Your task to perform on an android device: Open the map Image 0: 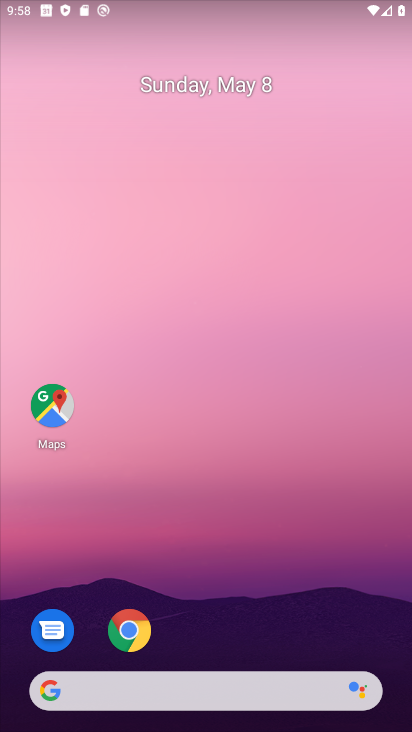
Step 0: drag from (198, 728) to (168, 84)
Your task to perform on an android device: Open the map Image 1: 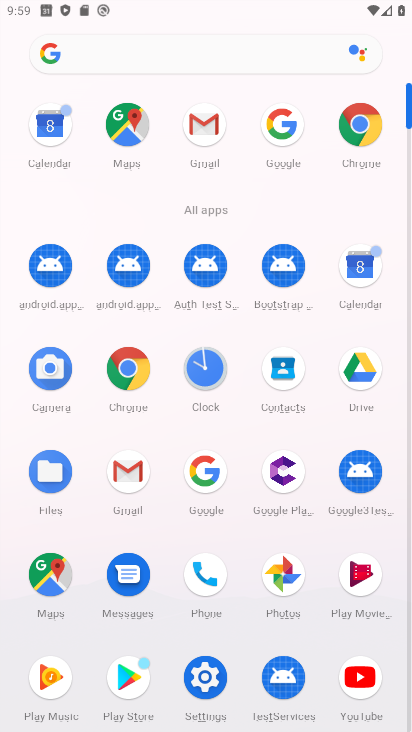
Step 1: click (46, 573)
Your task to perform on an android device: Open the map Image 2: 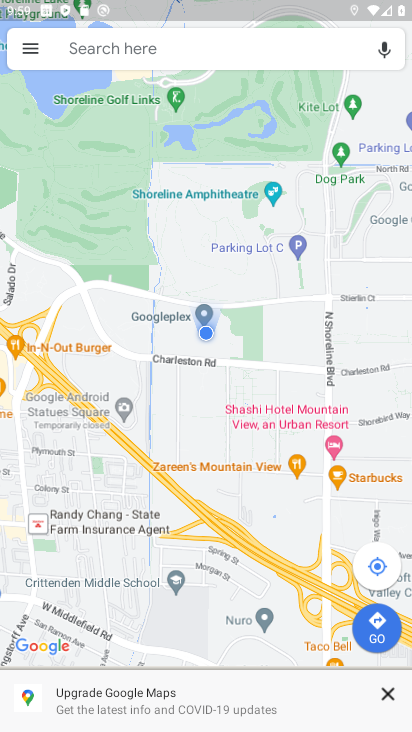
Step 2: task complete